Your task to perform on an android device: open the mobile data screen to see how much data has been used Image 0: 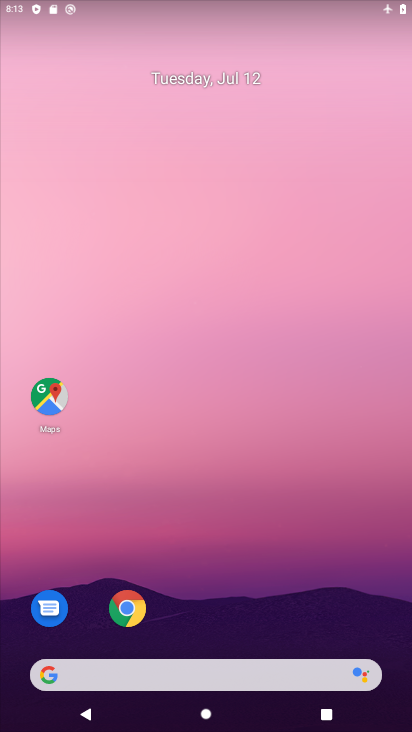
Step 0: drag from (208, 641) to (222, 142)
Your task to perform on an android device: open the mobile data screen to see how much data has been used Image 1: 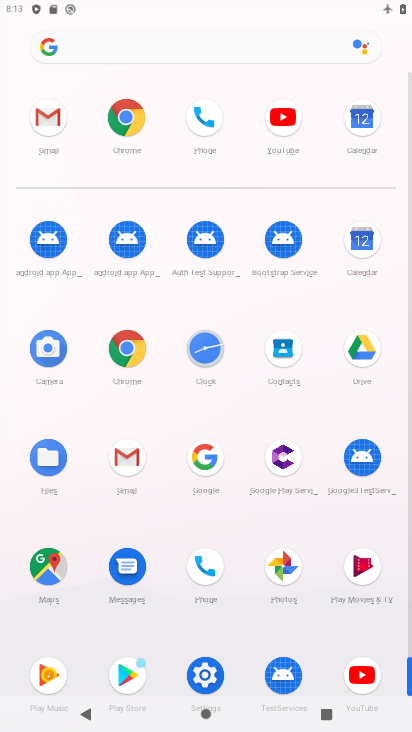
Step 1: click (200, 675)
Your task to perform on an android device: open the mobile data screen to see how much data has been used Image 2: 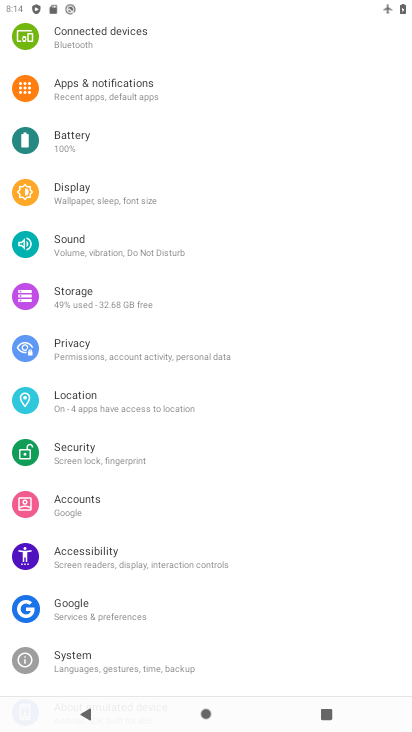
Step 2: drag from (98, 77) to (98, 313)
Your task to perform on an android device: open the mobile data screen to see how much data has been used Image 3: 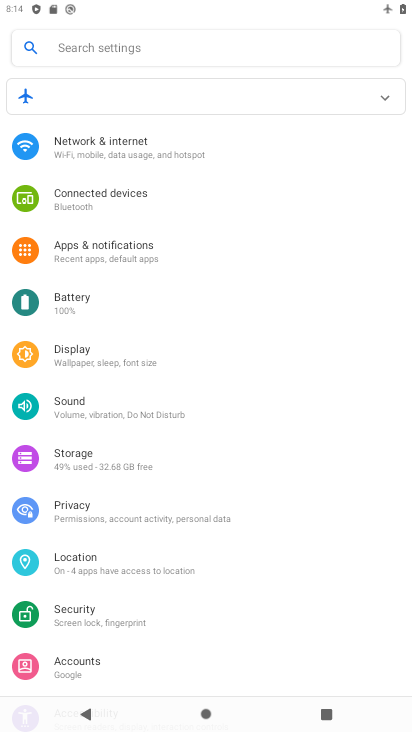
Step 3: click (102, 153)
Your task to perform on an android device: open the mobile data screen to see how much data has been used Image 4: 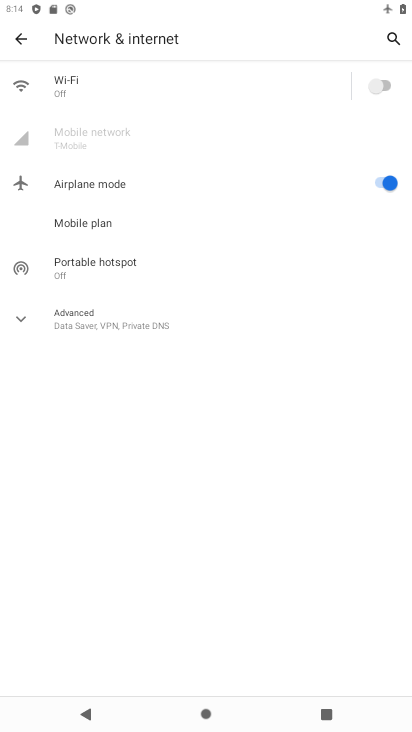
Step 4: task complete